Your task to perform on an android device: Search for Italian restaurants on Maps Image 0: 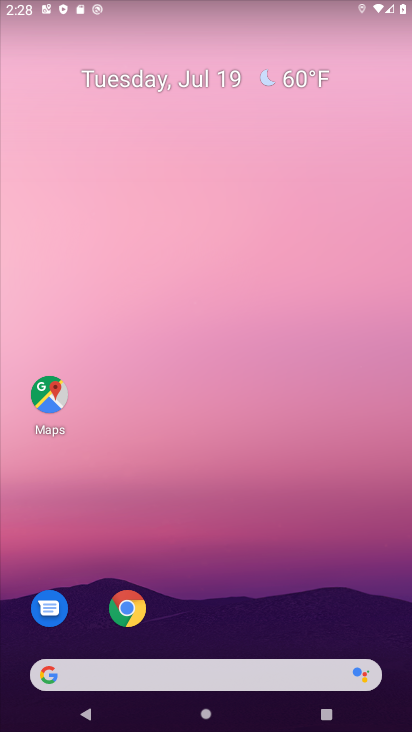
Step 0: drag from (236, 561) to (213, 58)
Your task to perform on an android device: Search for Italian restaurants on Maps Image 1: 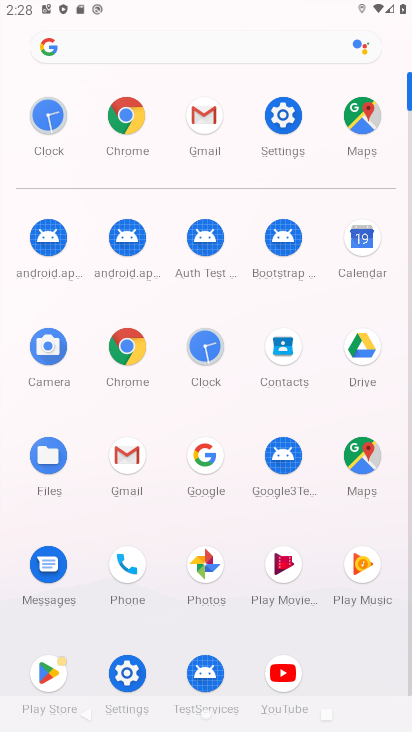
Step 1: click (364, 466)
Your task to perform on an android device: Search for Italian restaurants on Maps Image 2: 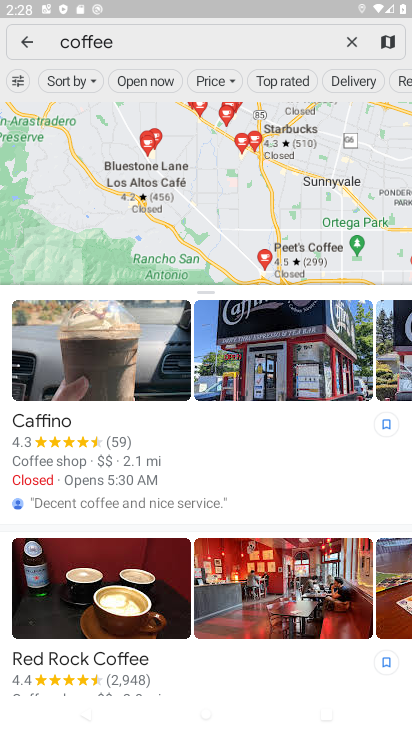
Step 2: click (23, 50)
Your task to perform on an android device: Search for Italian restaurants on Maps Image 3: 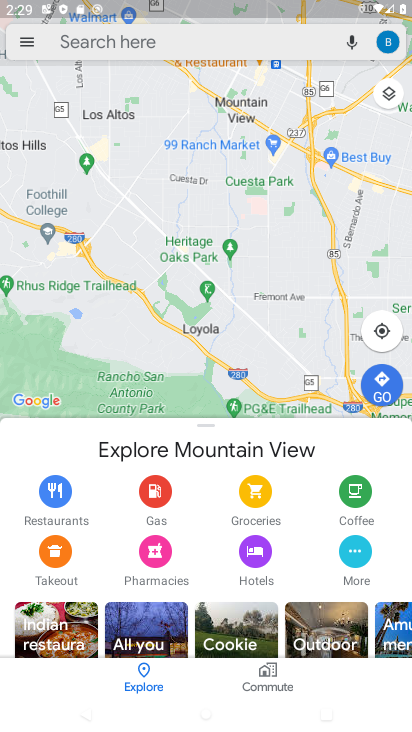
Step 3: click (121, 51)
Your task to perform on an android device: Search for Italian restaurants on Maps Image 4: 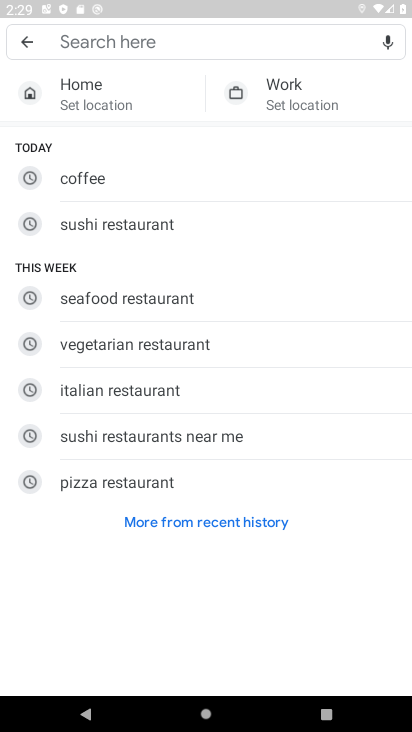
Step 4: click (121, 384)
Your task to perform on an android device: Search for Italian restaurants on Maps Image 5: 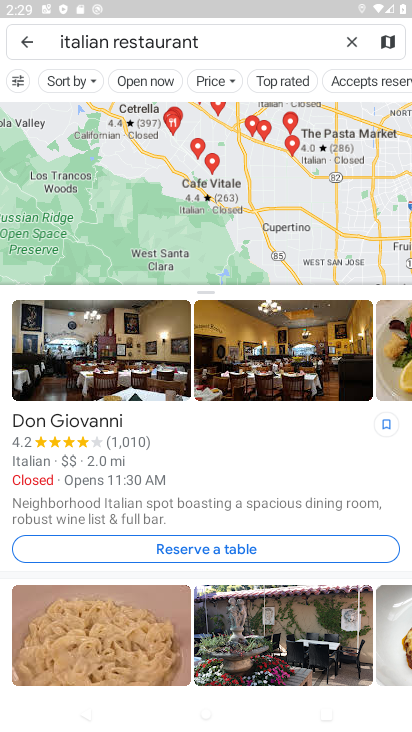
Step 5: task complete